Your task to perform on an android device: set the stopwatch Image 0: 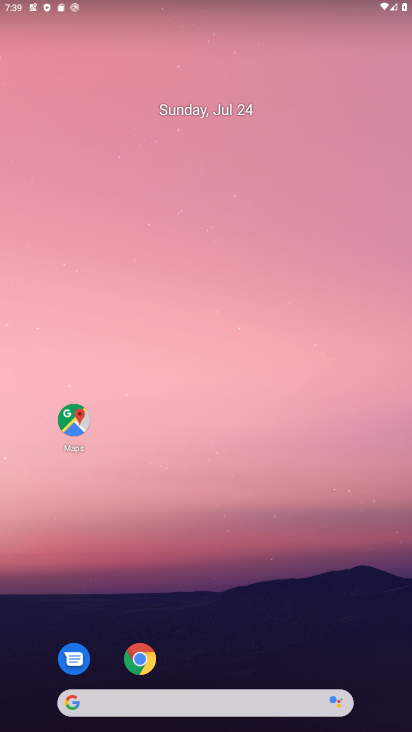
Step 0: drag from (374, 621) to (213, 64)
Your task to perform on an android device: set the stopwatch Image 1: 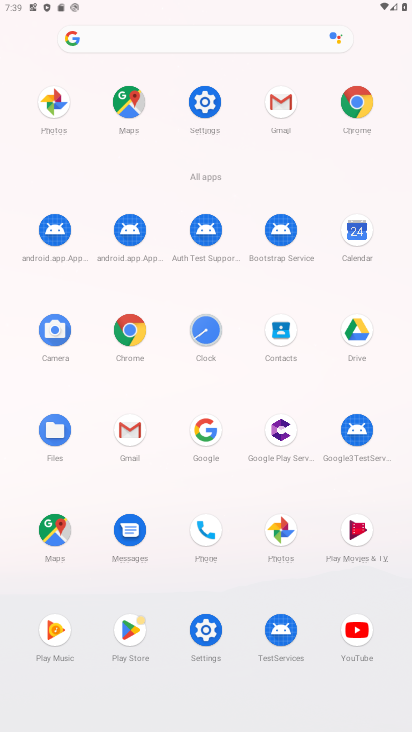
Step 1: click (200, 328)
Your task to perform on an android device: set the stopwatch Image 2: 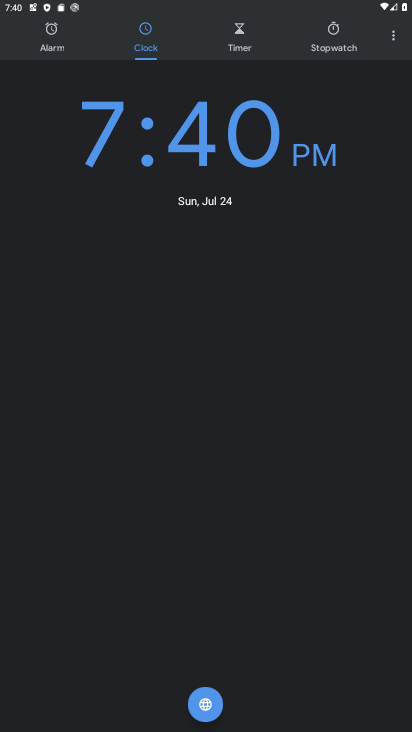
Step 2: click (334, 33)
Your task to perform on an android device: set the stopwatch Image 3: 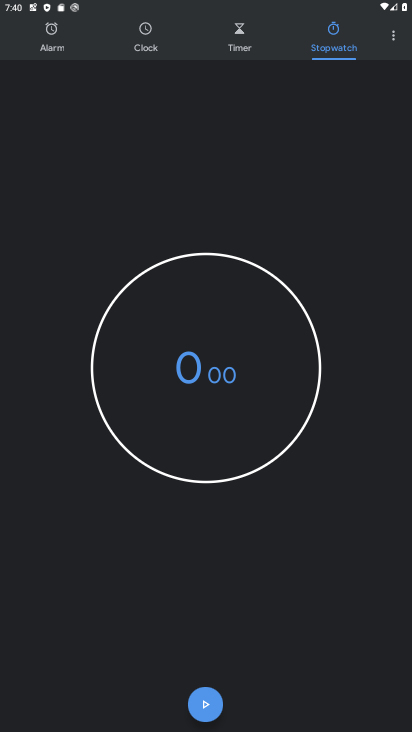
Step 3: click (218, 703)
Your task to perform on an android device: set the stopwatch Image 4: 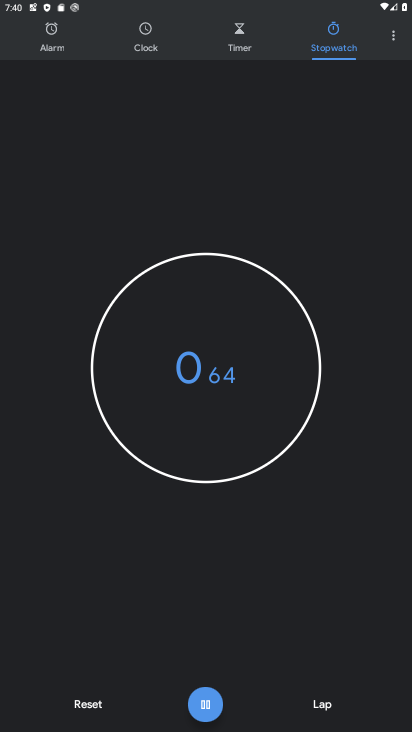
Step 4: click (218, 703)
Your task to perform on an android device: set the stopwatch Image 5: 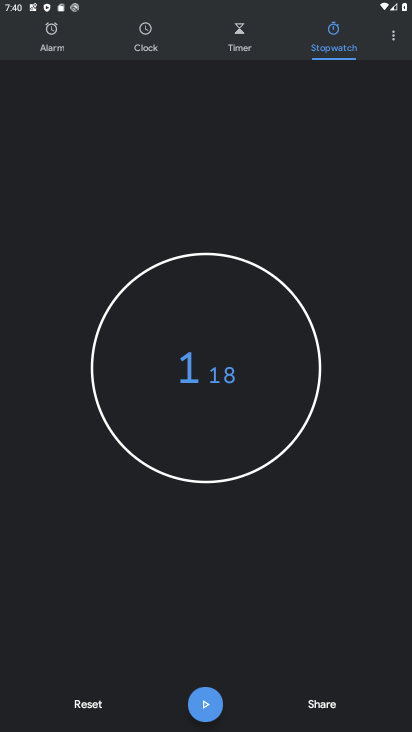
Step 5: task complete